Your task to perform on an android device: Show me popular videos on Youtube Image 0: 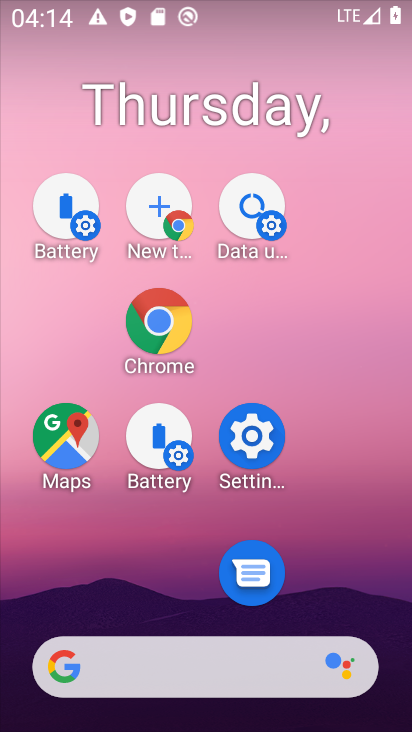
Step 0: drag from (246, 680) to (182, 238)
Your task to perform on an android device: Show me popular videos on Youtube Image 1: 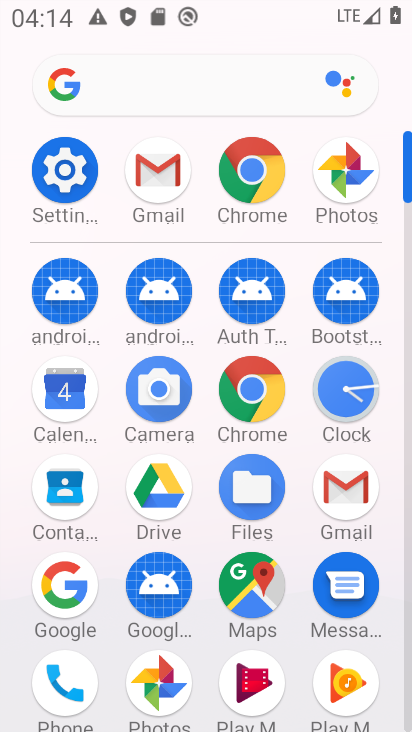
Step 1: drag from (271, 600) to (236, 229)
Your task to perform on an android device: Show me popular videos on Youtube Image 2: 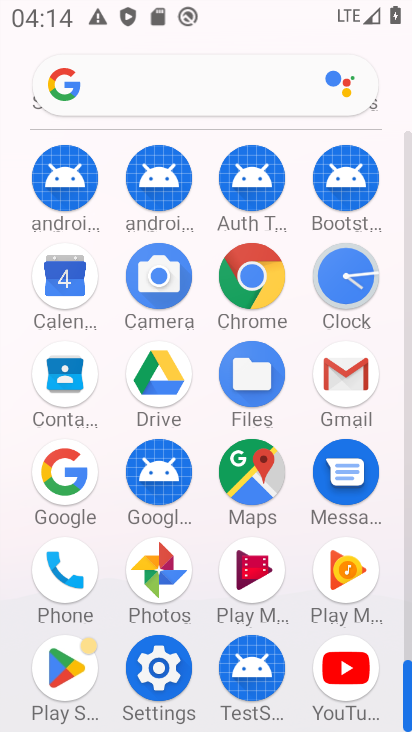
Step 2: drag from (329, 493) to (303, 265)
Your task to perform on an android device: Show me popular videos on Youtube Image 3: 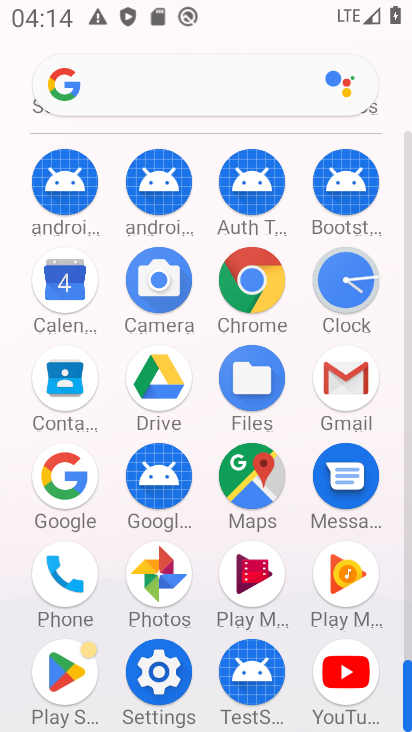
Step 3: click (349, 662)
Your task to perform on an android device: Show me popular videos on Youtube Image 4: 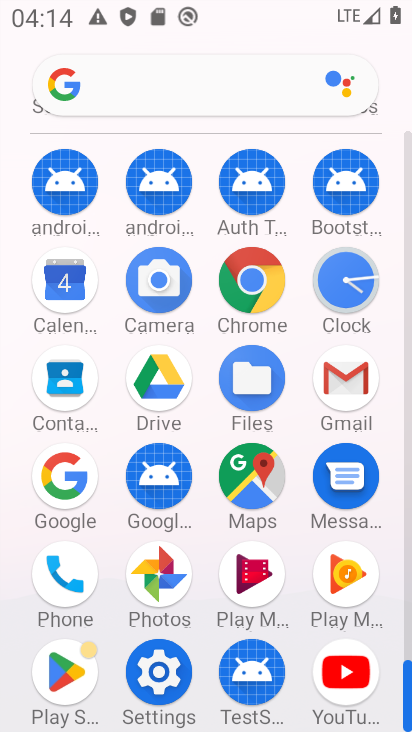
Step 4: click (349, 662)
Your task to perform on an android device: Show me popular videos on Youtube Image 5: 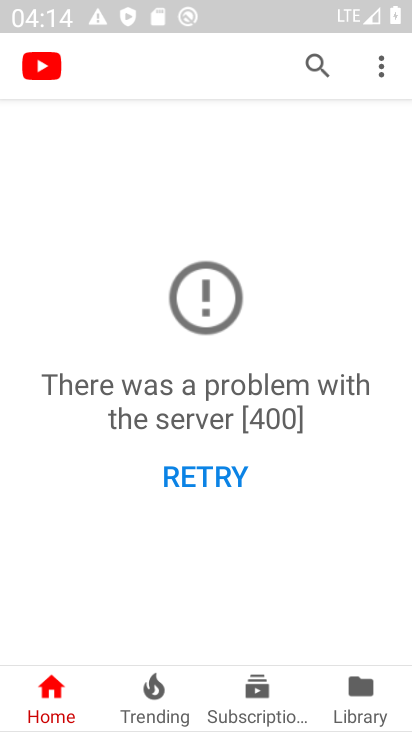
Step 5: task complete